Your task to perform on an android device: add a contact Image 0: 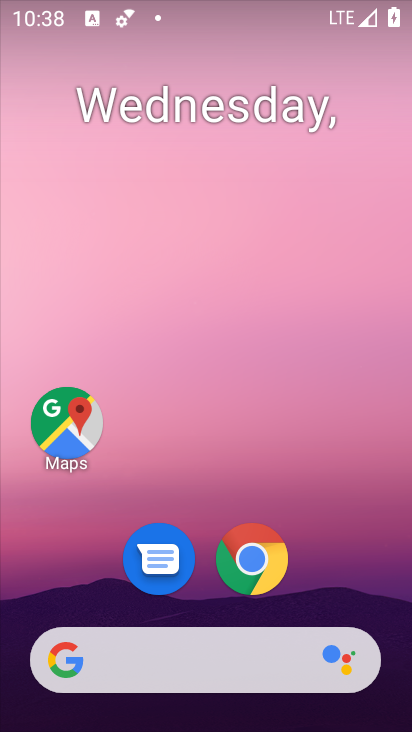
Step 0: drag from (262, 647) to (290, 198)
Your task to perform on an android device: add a contact Image 1: 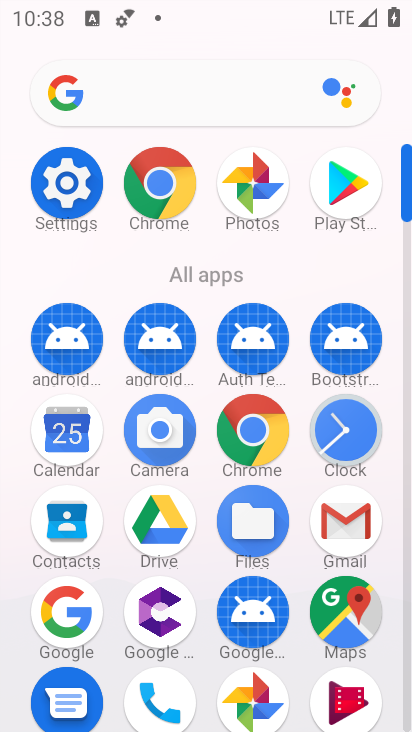
Step 1: click (68, 511)
Your task to perform on an android device: add a contact Image 2: 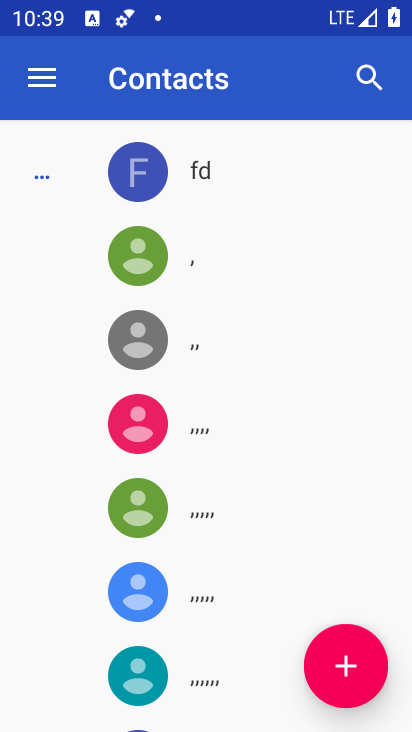
Step 2: click (354, 674)
Your task to perform on an android device: add a contact Image 3: 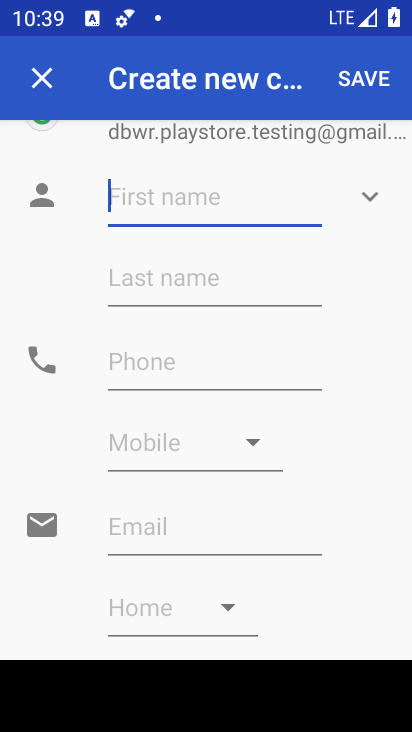
Step 3: type "ghfhj"
Your task to perform on an android device: add a contact Image 4: 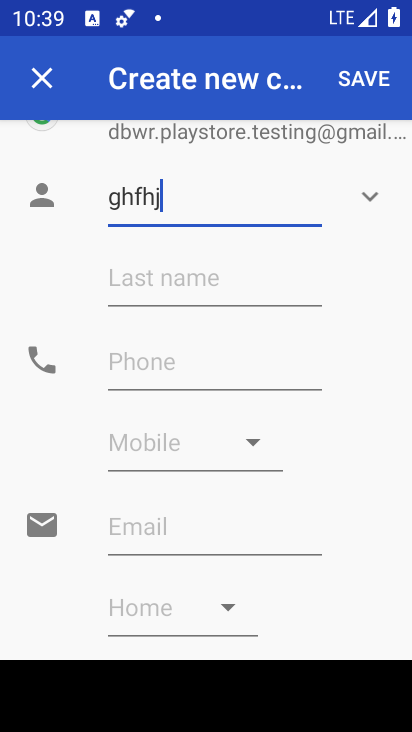
Step 4: click (126, 359)
Your task to perform on an android device: add a contact Image 5: 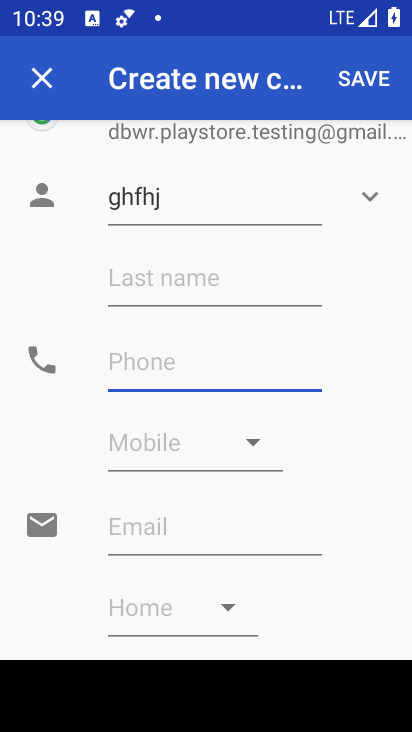
Step 5: type "76568977"
Your task to perform on an android device: add a contact Image 6: 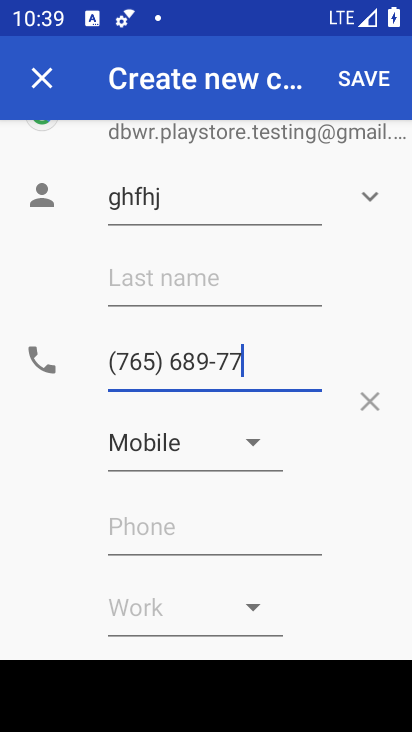
Step 6: click (381, 88)
Your task to perform on an android device: add a contact Image 7: 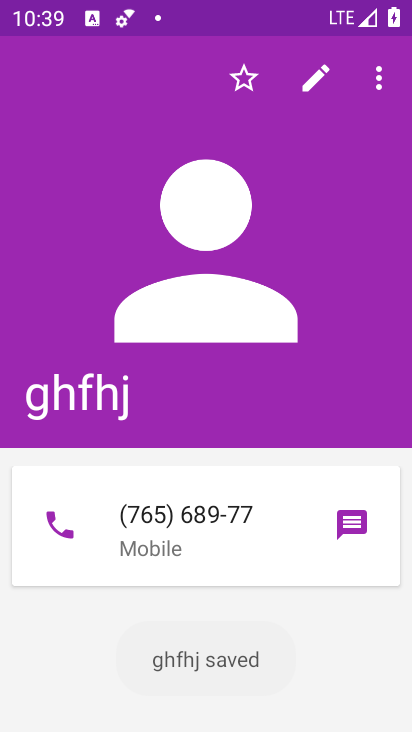
Step 7: task complete